Your task to perform on an android device: turn off data saver in the chrome app Image 0: 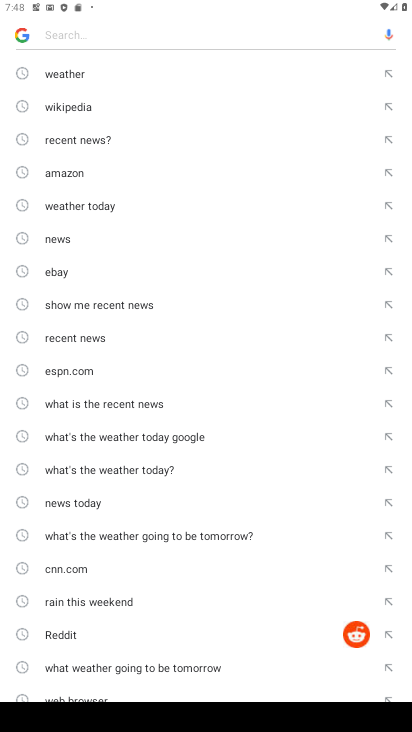
Step 0: press home button
Your task to perform on an android device: turn off data saver in the chrome app Image 1: 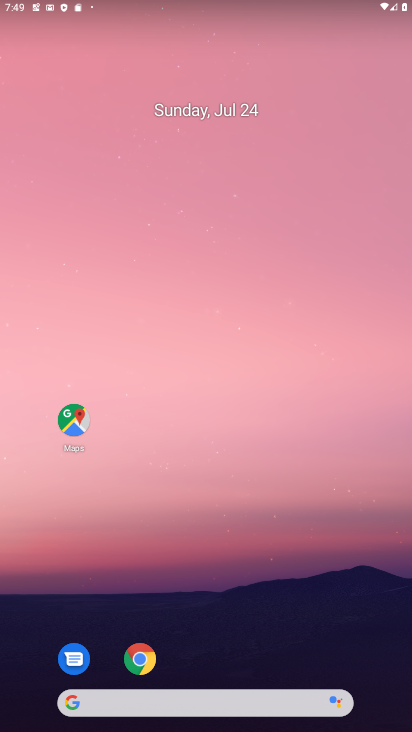
Step 1: click (145, 663)
Your task to perform on an android device: turn off data saver in the chrome app Image 2: 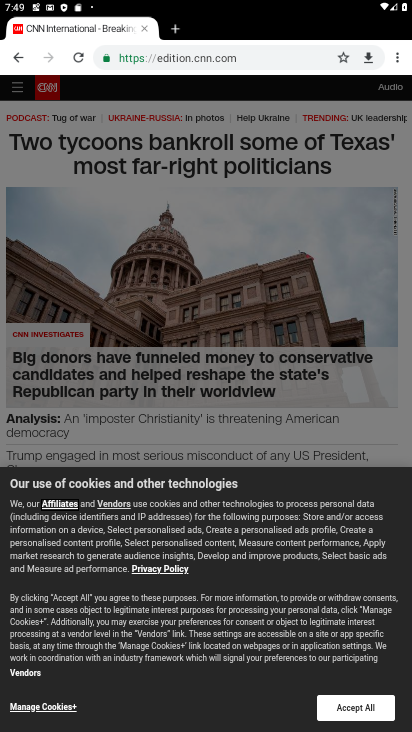
Step 2: press home button
Your task to perform on an android device: turn off data saver in the chrome app Image 3: 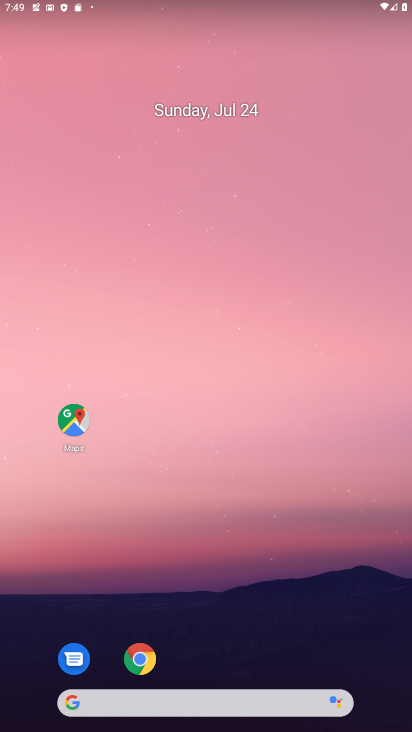
Step 3: click (147, 673)
Your task to perform on an android device: turn off data saver in the chrome app Image 4: 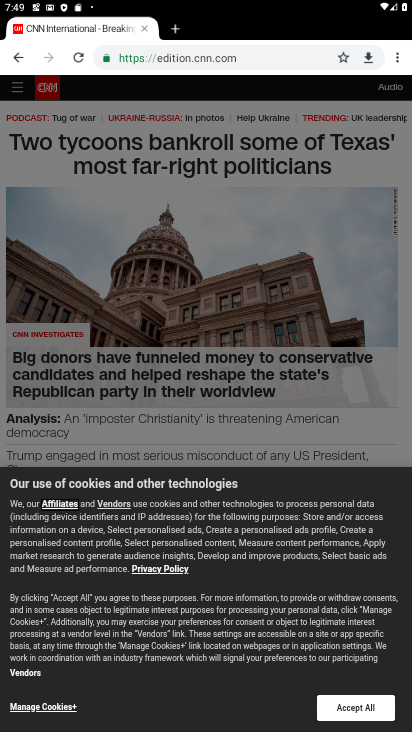
Step 4: click (396, 47)
Your task to perform on an android device: turn off data saver in the chrome app Image 5: 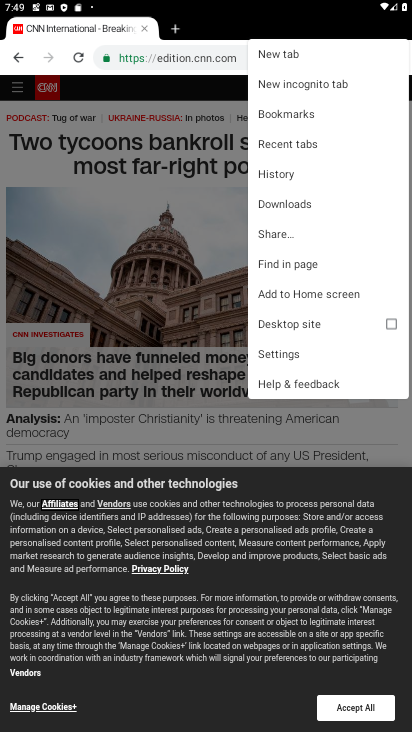
Step 5: click (279, 356)
Your task to perform on an android device: turn off data saver in the chrome app Image 6: 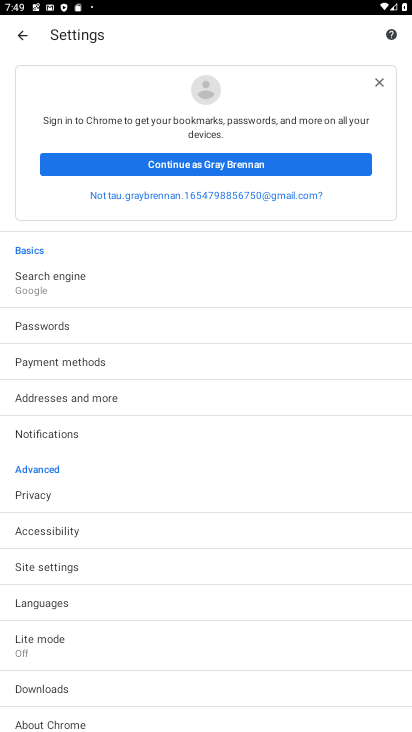
Step 6: click (30, 642)
Your task to perform on an android device: turn off data saver in the chrome app Image 7: 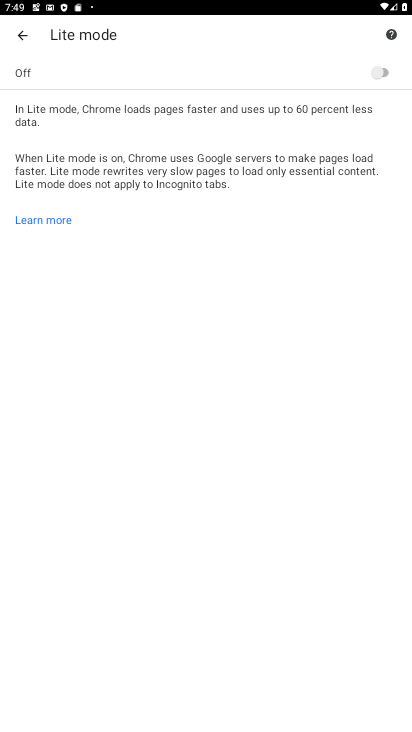
Step 7: task complete